Your task to perform on an android device: Turn off the flashlight Image 0: 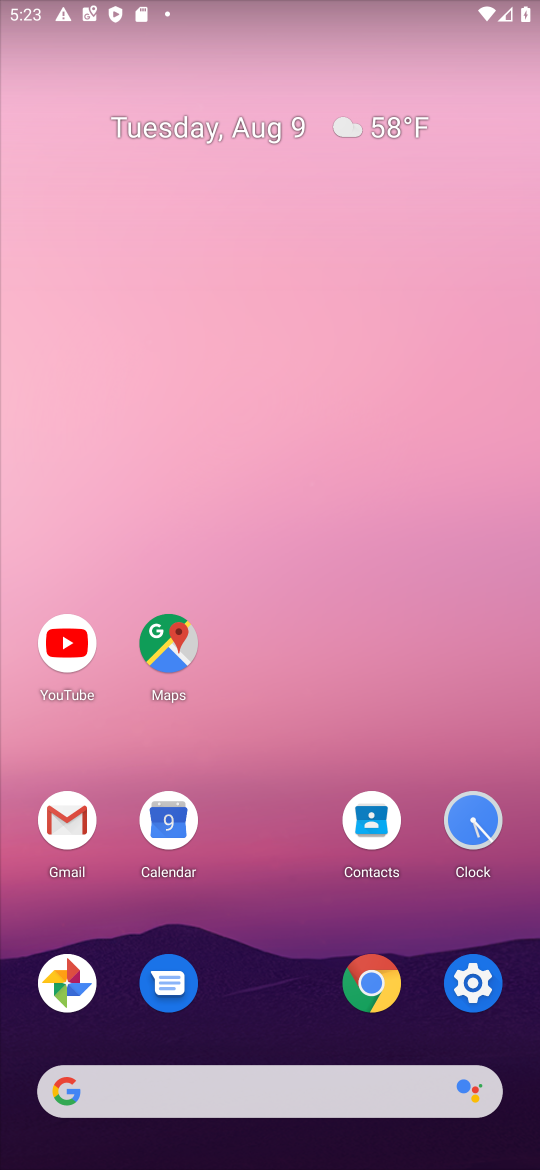
Step 0: click (471, 984)
Your task to perform on an android device: Turn off the flashlight Image 1: 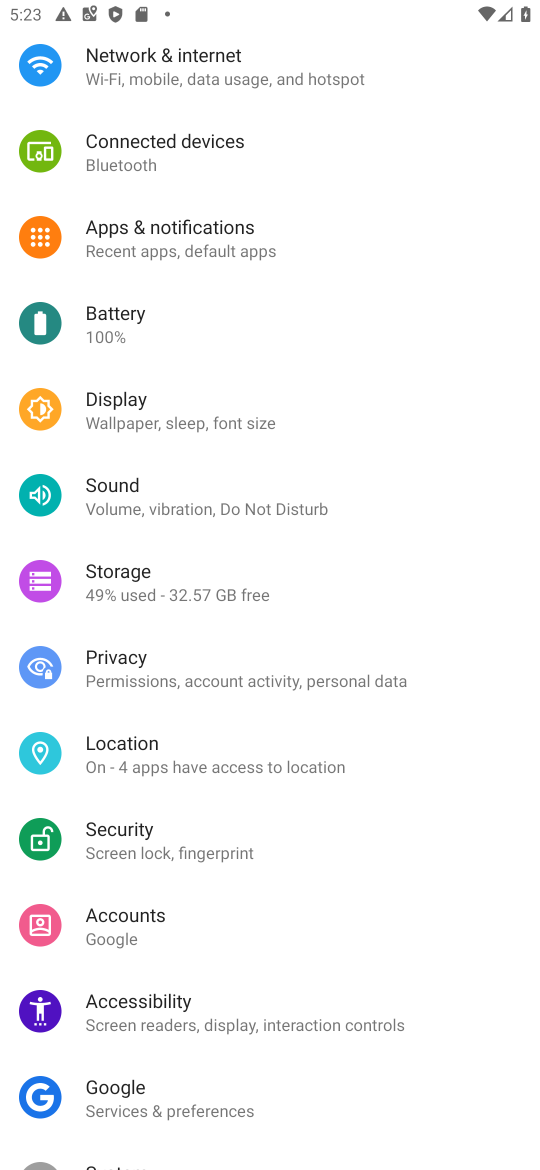
Step 1: click (100, 402)
Your task to perform on an android device: Turn off the flashlight Image 2: 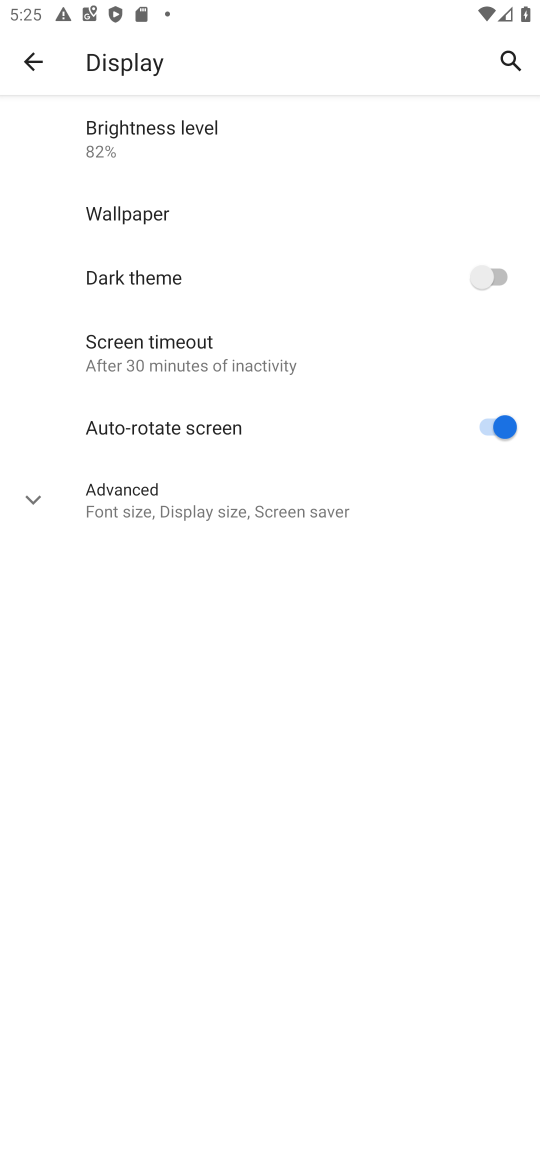
Step 2: task complete